Your task to perform on an android device: Open Google Maps Image 0: 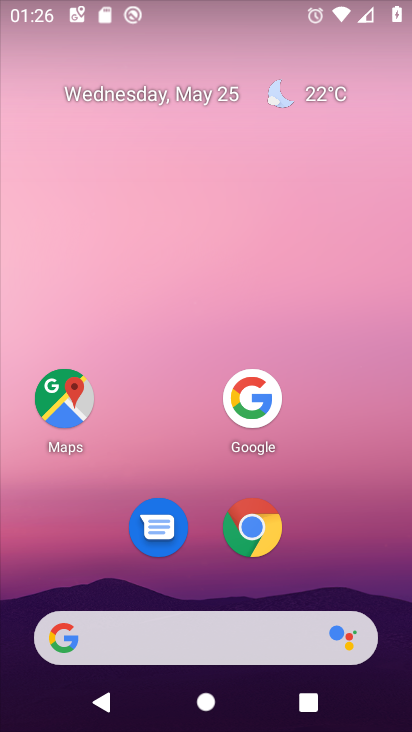
Step 0: press home button
Your task to perform on an android device: Open Google Maps Image 1: 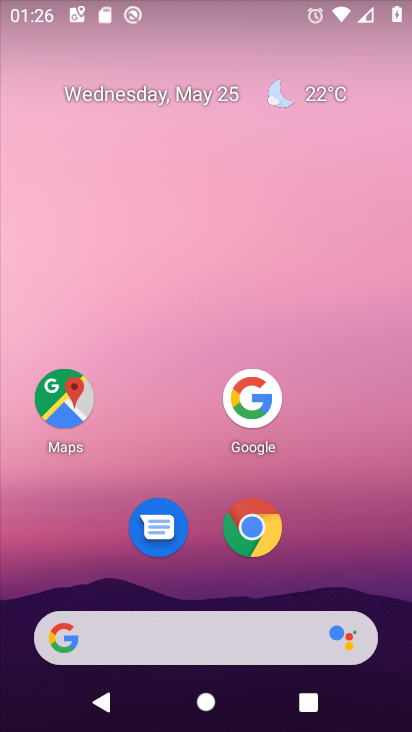
Step 1: click (60, 401)
Your task to perform on an android device: Open Google Maps Image 2: 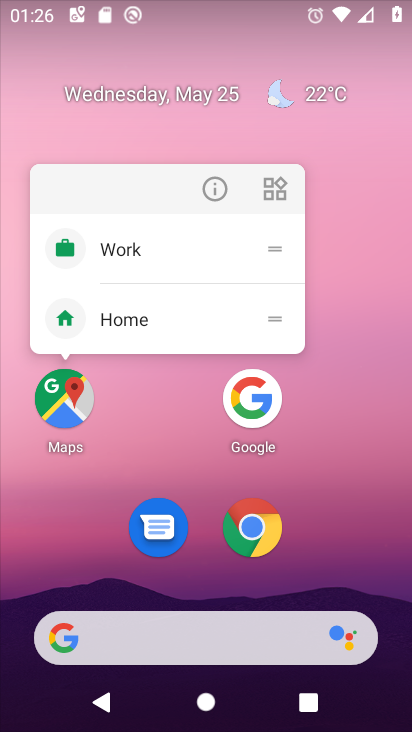
Step 2: click (63, 393)
Your task to perform on an android device: Open Google Maps Image 3: 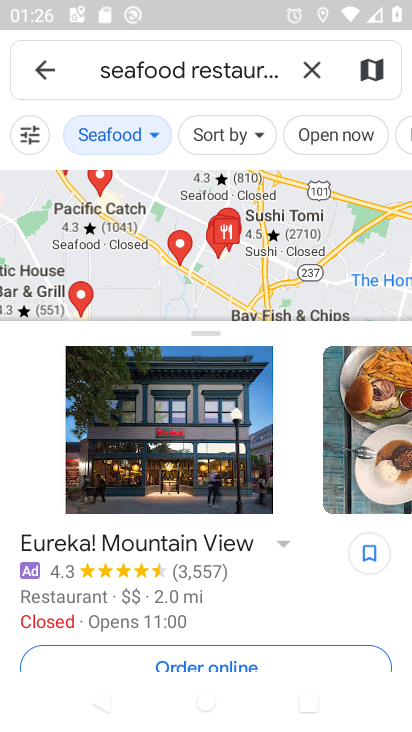
Step 3: click (47, 70)
Your task to perform on an android device: Open Google Maps Image 4: 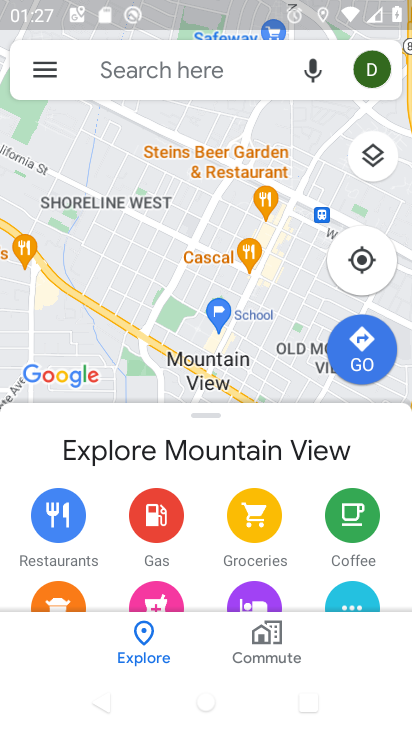
Step 4: task complete